Your task to perform on an android device: change the clock display to analog Image 0: 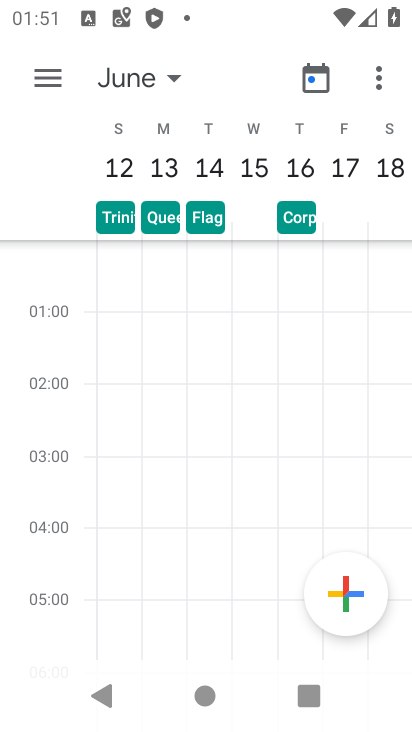
Step 0: press home button
Your task to perform on an android device: change the clock display to analog Image 1: 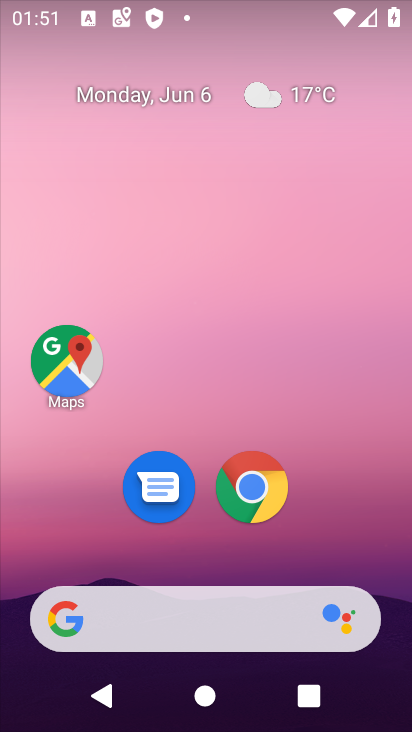
Step 1: drag from (401, 635) to (329, 106)
Your task to perform on an android device: change the clock display to analog Image 2: 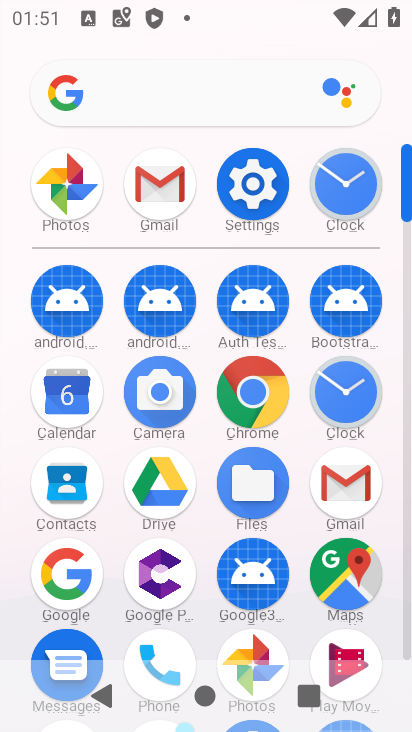
Step 2: click (408, 641)
Your task to perform on an android device: change the clock display to analog Image 3: 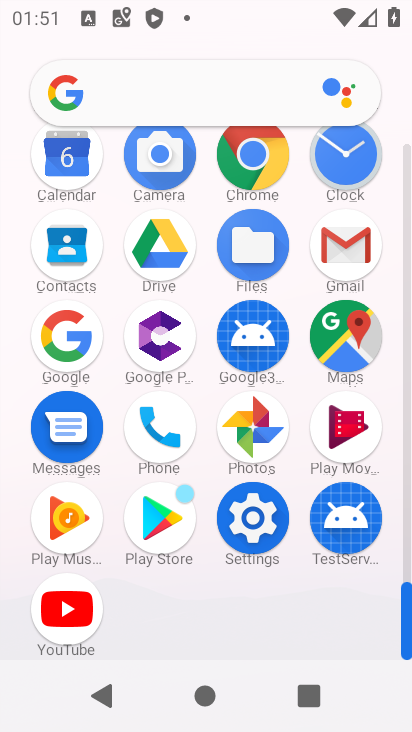
Step 3: click (347, 156)
Your task to perform on an android device: change the clock display to analog Image 4: 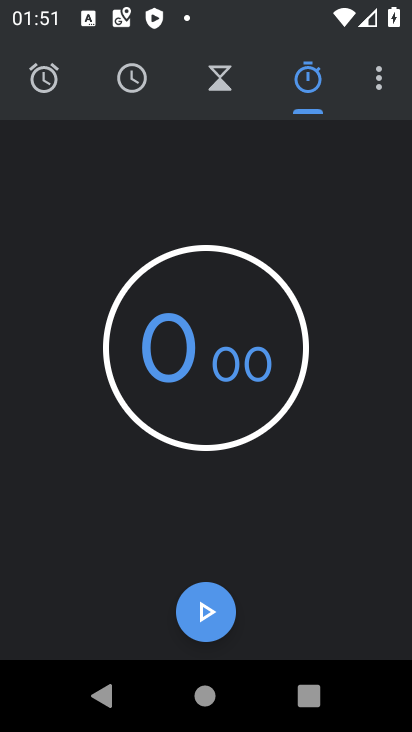
Step 4: click (377, 86)
Your task to perform on an android device: change the clock display to analog Image 5: 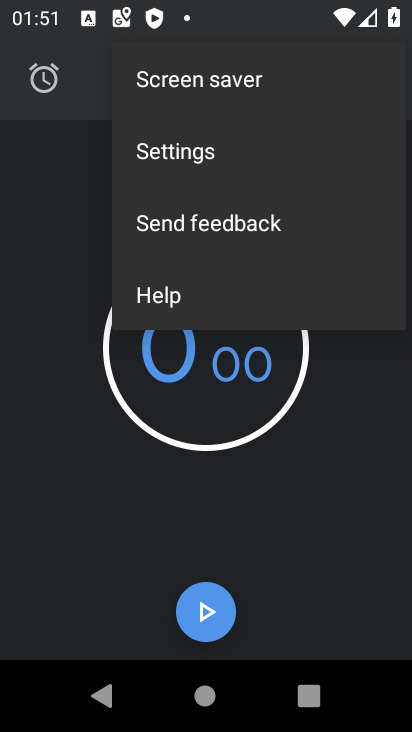
Step 5: click (190, 149)
Your task to perform on an android device: change the clock display to analog Image 6: 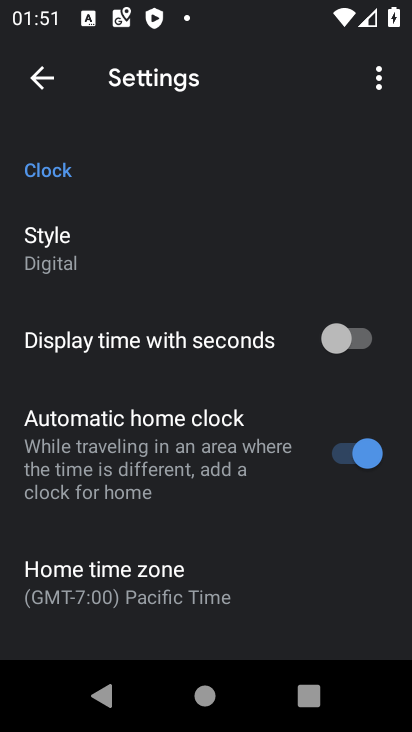
Step 6: click (70, 261)
Your task to perform on an android device: change the clock display to analog Image 7: 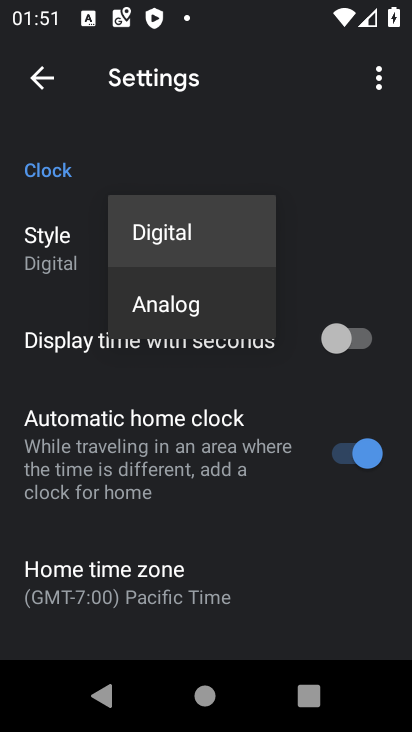
Step 7: click (153, 303)
Your task to perform on an android device: change the clock display to analog Image 8: 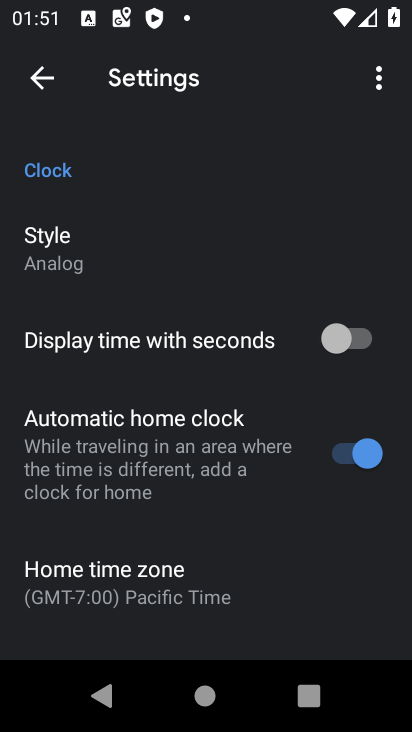
Step 8: task complete